Your task to perform on an android device: turn off translation in the chrome app Image 0: 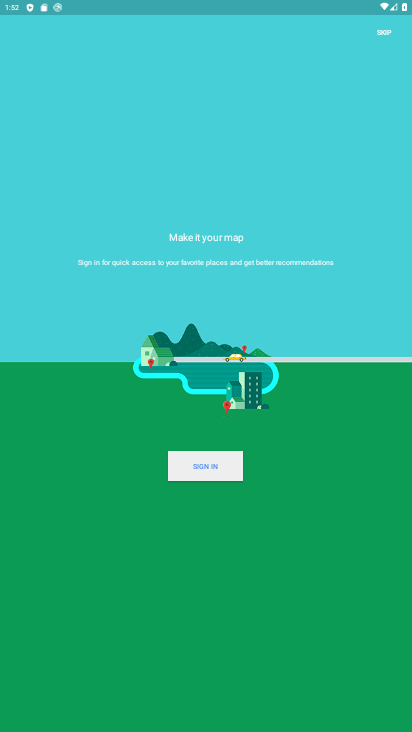
Step 0: press home button
Your task to perform on an android device: turn off translation in the chrome app Image 1: 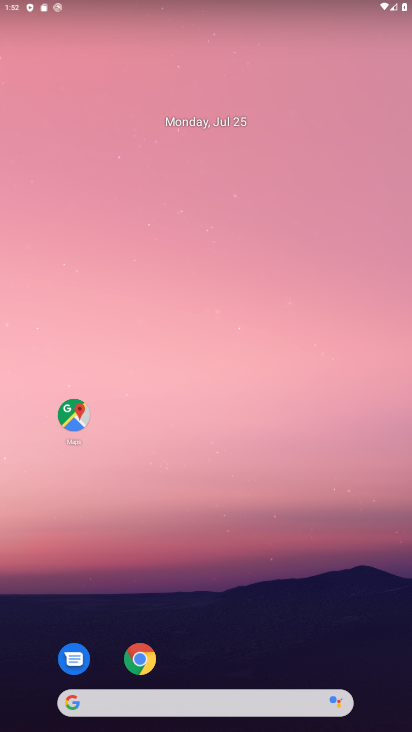
Step 1: click (139, 655)
Your task to perform on an android device: turn off translation in the chrome app Image 2: 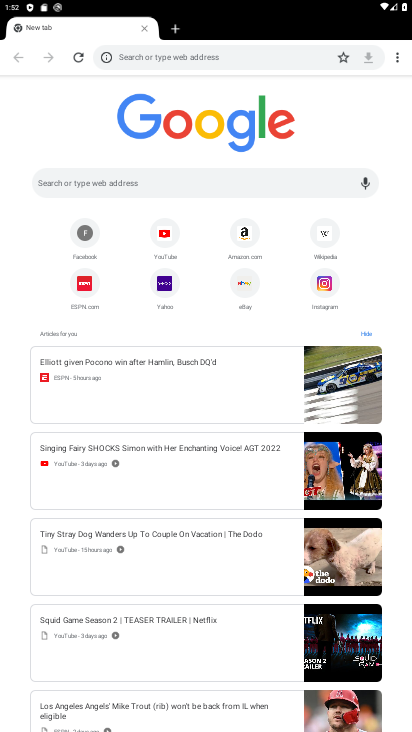
Step 2: click (397, 60)
Your task to perform on an android device: turn off translation in the chrome app Image 3: 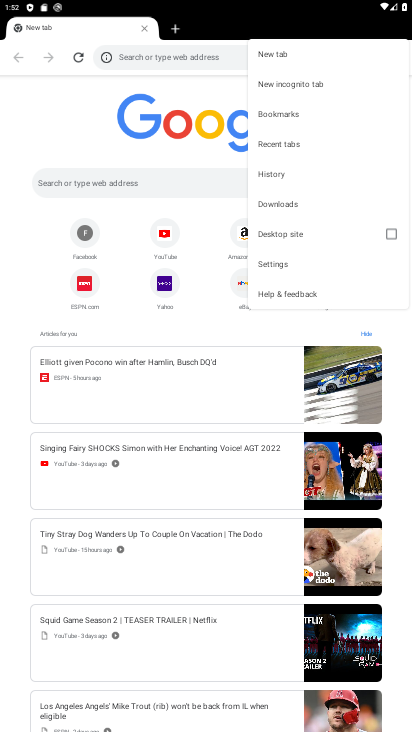
Step 3: click (283, 262)
Your task to perform on an android device: turn off translation in the chrome app Image 4: 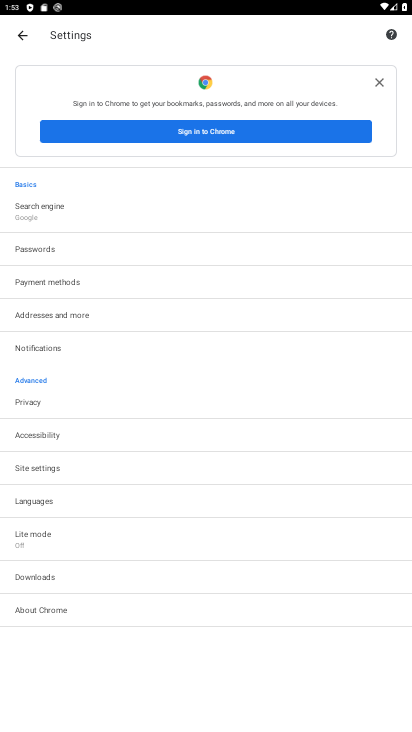
Step 4: click (46, 502)
Your task to perform on an android device: turn off translation in the chrome app Image 5: 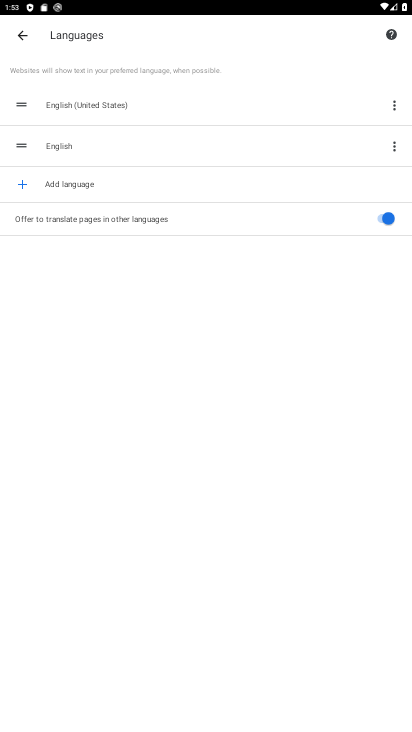
Step 5: click (360, 224)
Your task to perform on an android device: turn off translation in the chrome app Image 6: 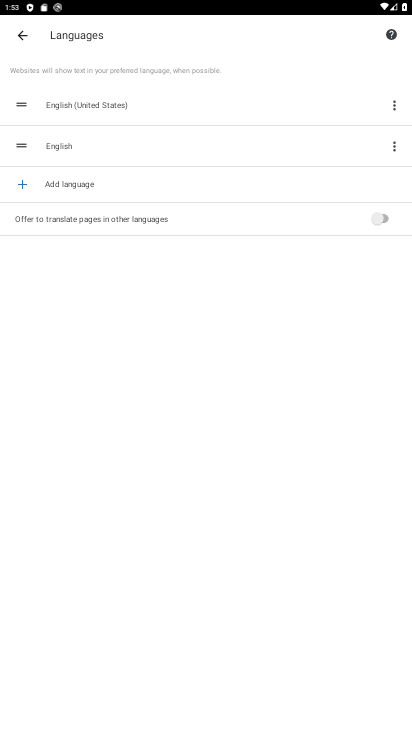
Step 6: task complete